Your task to perform on an android device: Open settings Image 0: 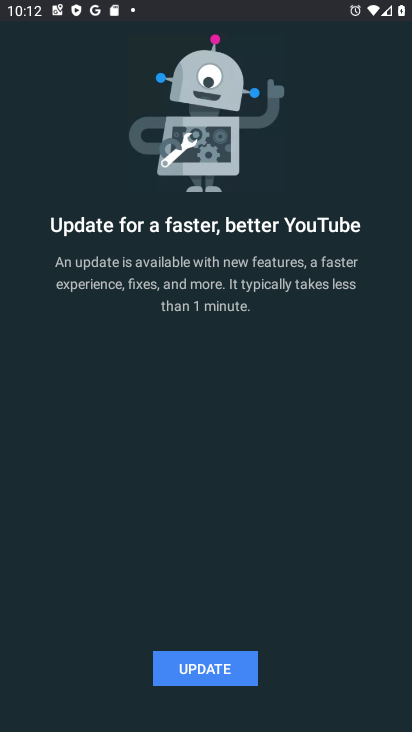
Step 0: press home button
Your task to perform on an android device: Open settings Image 1: 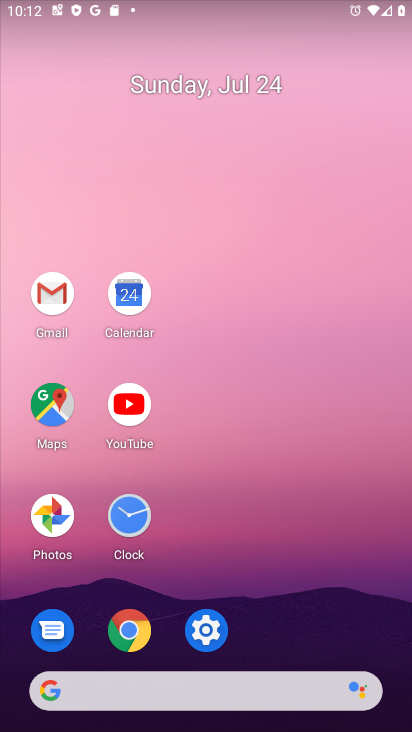
Step 1: click (201, 635)
Your task to perform on an android device: Open settings Image 2: 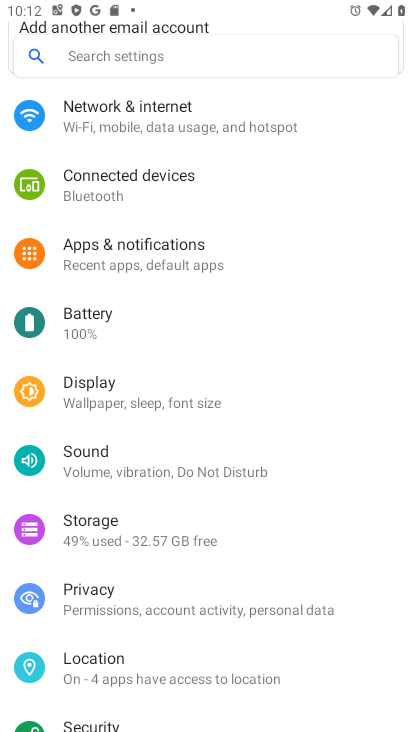
Step 2: task complete